Your task to perform on an android device: open a new tab in the chrome app Image 0: 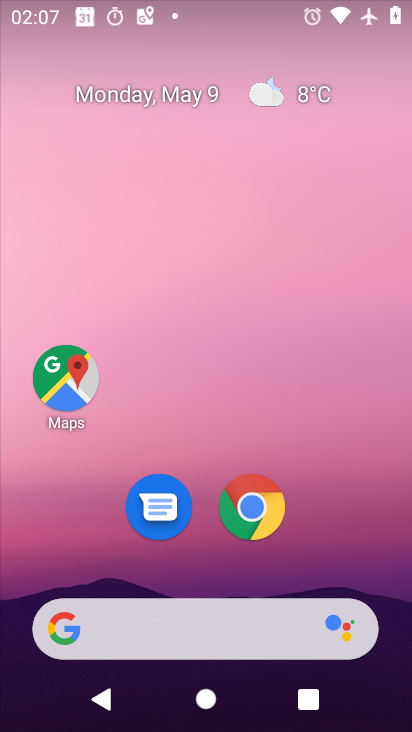
Step 0: click (254, 509)
Your task to perform on an android device: open a new tab in the chrome app Image 1: 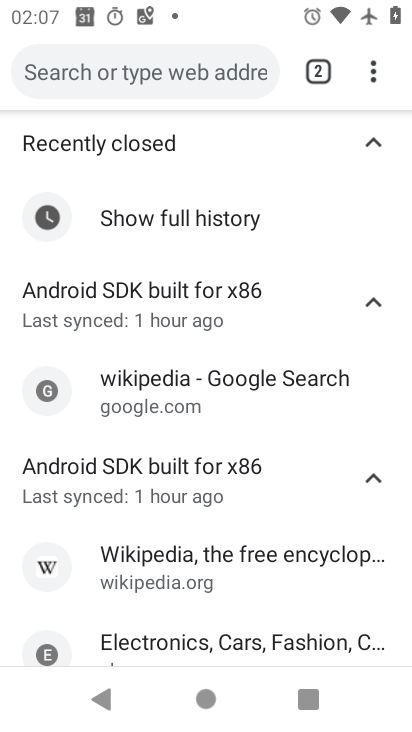
Step 1: task complete